Your task to perform on an android device: Clear the cart on walmart. Search for duracell triple a on walmart, select the first entry, and add it to the cart. Image 0: 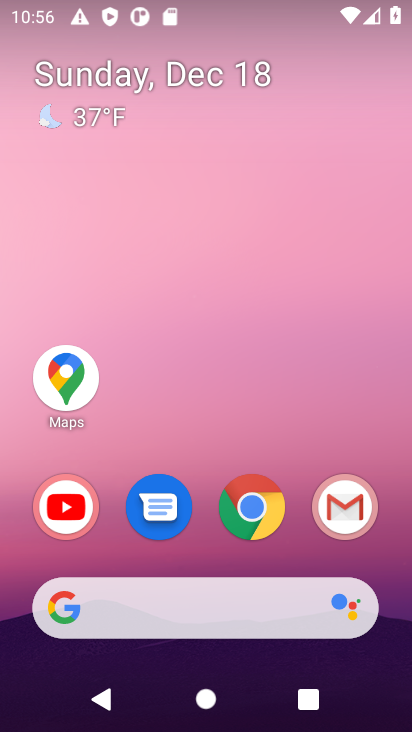
Step 0: click (254, 517)
Your task to perform on an android device: Clear the cart on walmart. Search for duracell triple a on walmart, select the first entry, and add it to the cart. Image 1: 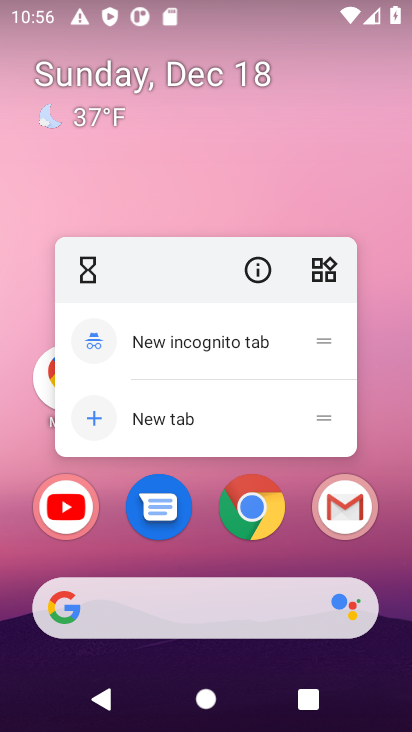
Step 1: click (254, 517)
Your task to perform on an android device: Clear the cart on walmart. Search for duracell triple a on walmart, select the first entry, and add it to the cart. Image 2: 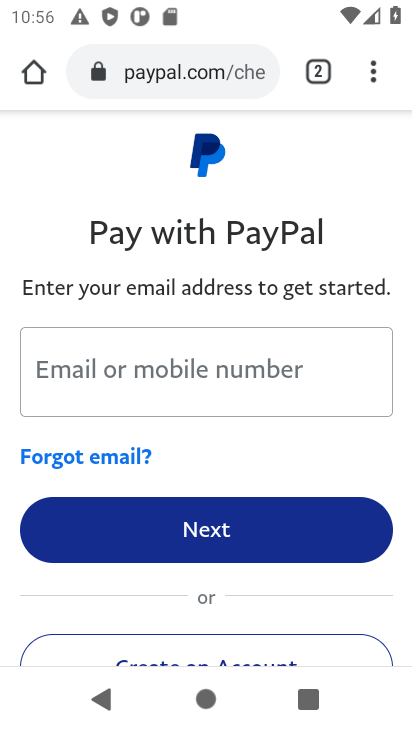
Step 2: click (161, 80)
Your task to perform on an android device: Clear the cart on walmart. Search for duracell triple a on walmart, select the first entry, and add it to the cart. Image 3: 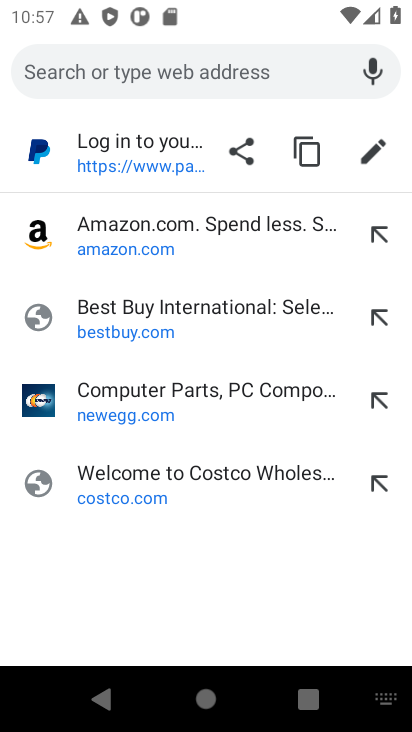
Step 3: type "walmart.com"
Your task to perform on an android device: Clear the cart on walmart. Search for duracell triple a on walmart, select the first entry, and add it to the cart. Image 4: 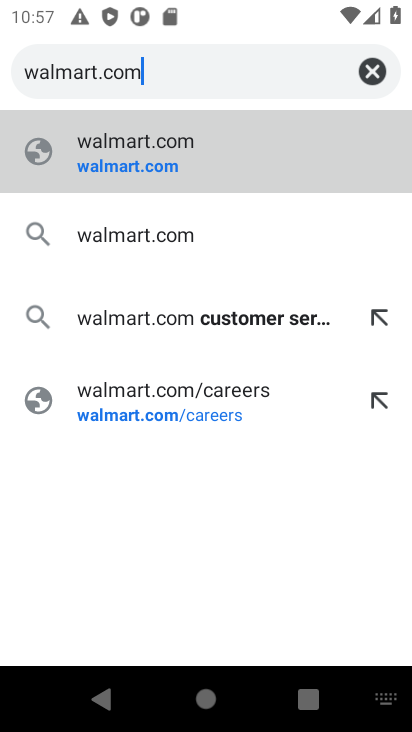
Step 4: click (158, 176)
Your task to perform on an android device: Clear the cart on walmart. Search for duracell triple a on walmart, select the first entry, and add it to the cart. Image 5: 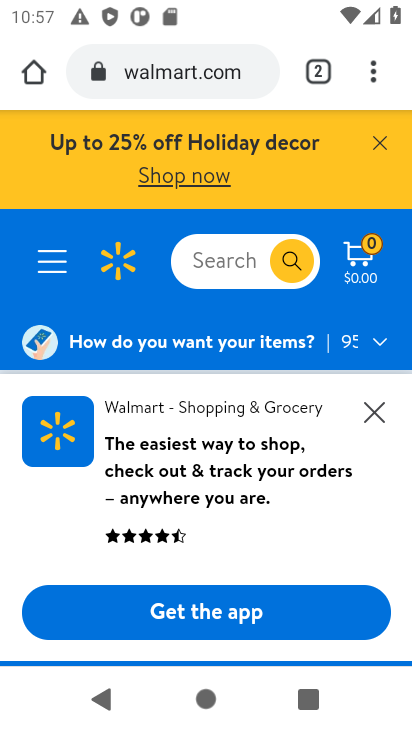
Step 5: click (379, 407)
Your task to perform on an android device: Clear the cart on walmart. Search for duracell triple a on walmart, select the first entry, and add it to the cart. Image 6: 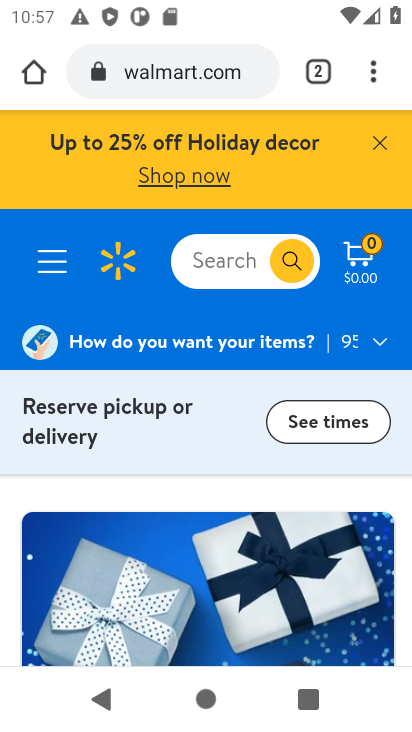
Step 6: click (357, 257)
Your task to perform on an android device: Clear the cart on walmart. Search for duracell triple a on walmart, select the first entry, and add it to the cart. Image 7: 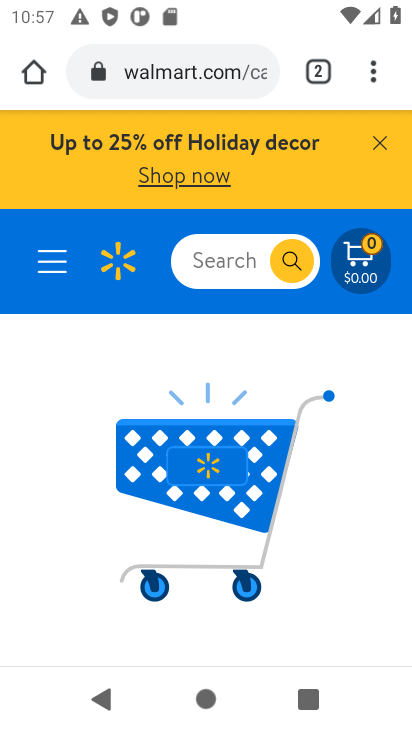
Step 7: click (234, 274)
Your task to perform on an android device: Clear the cart on walmart. Search for duracell triple a on walmart, select the first entry, and add it to the cart. Image 8: 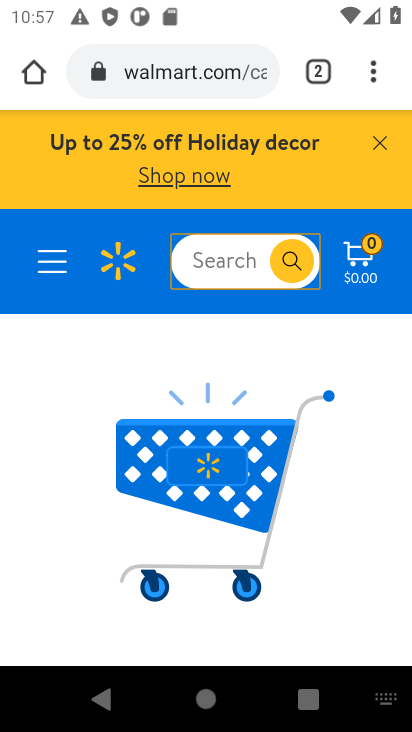
Step 8: type "duracell triple a"
Your task to perform on an android device: Clear the cart on walmart. Search for duracell triple a on walmart, select the first entry, and add it to the cart. Image 9: 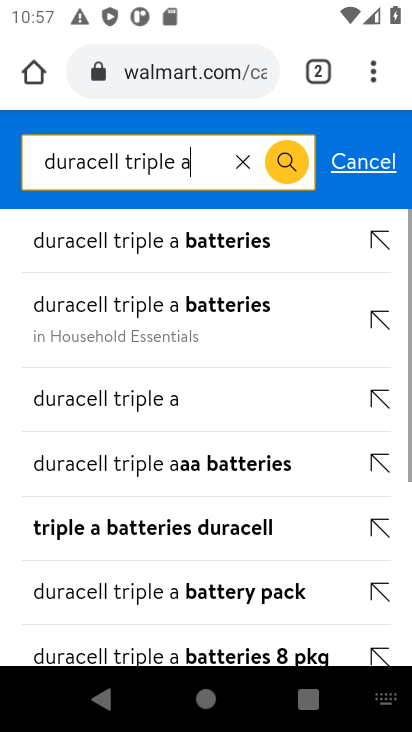
Step 9: click (222, 251)
Your task to perform on an android device: Clear the cart on walmart. Search for duracell triple a on walmart, select the first entry, and add it to the cart. Image 10: 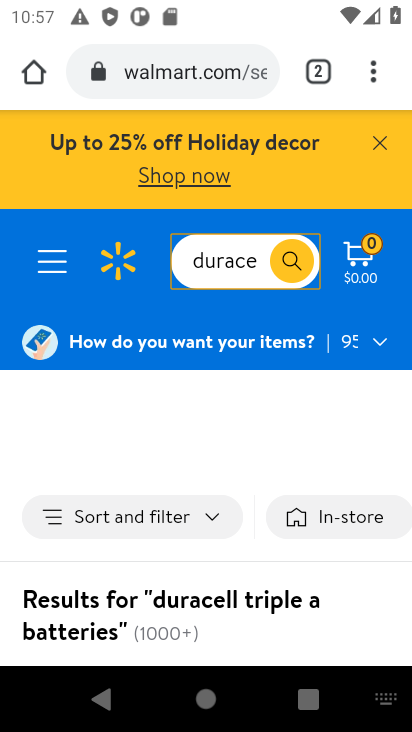
Step 10: drag from (242, 495) to (243, 196)
Your task to perform on an android device: Clear the cart on walmart. Search for duracell triple a on walmart, select the first entry, and add it to the cart. Image 11: 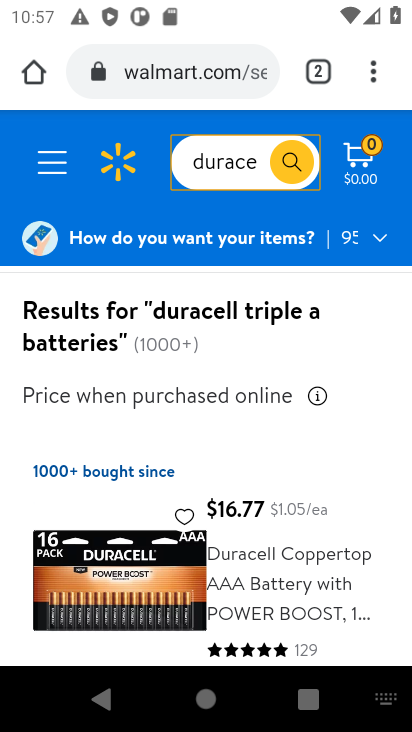
Step 11: drag from (247, 518) to (240, 249)
Your task to perform on an android device: Clear the cart on walmart. Search for duracell triple a on walmart, select the first entry, and add it to the cart. Image 12: 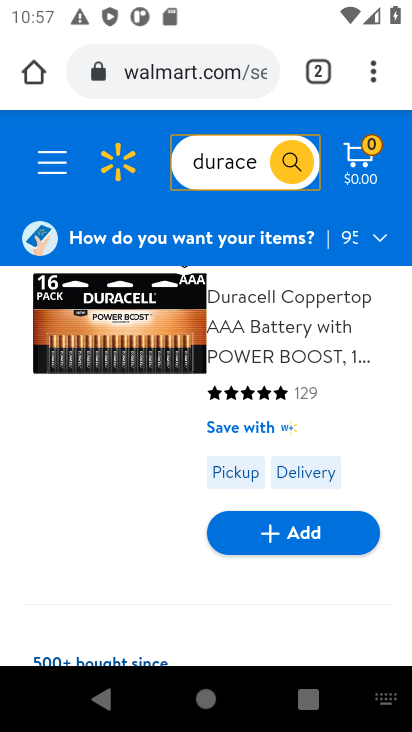
Step 12: click (295, 540)
Your task to perform on an android device: Clear the cart on walmart. Search for duracell triple a on walmart, select the first entry, and add it to the cart. Image 13: 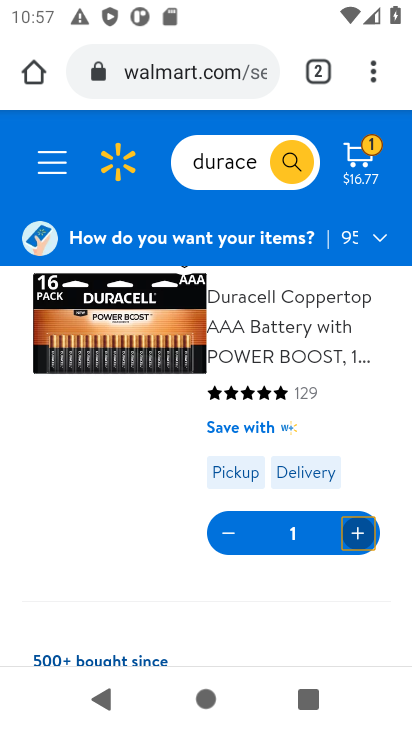
Step 13: task complete